Your task to perform on an android device: Is it going to rain today? Image 0: 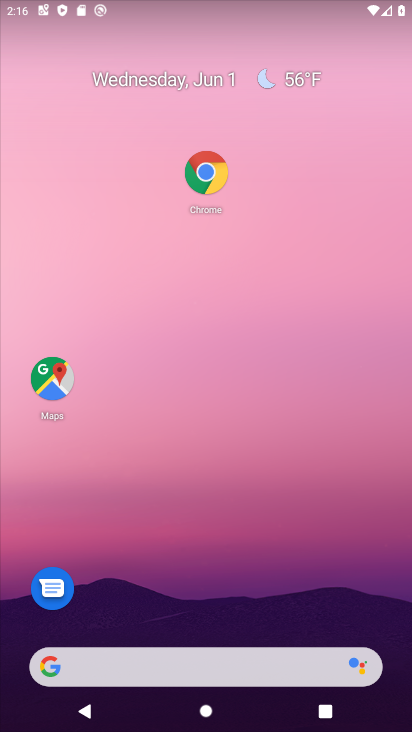
Step 0: drag from (218, 585) to (209, 65)
Your task to perform on an android device: Is it going to rain today? Image 1: 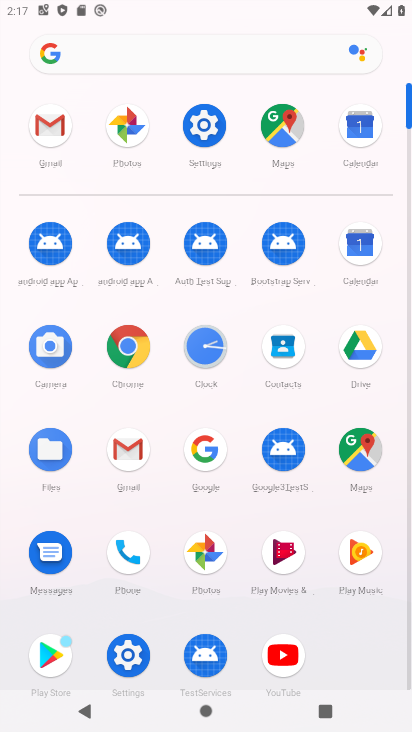
Step 1: click (205, 456)
Your task to perform on an android device: Is it going to rain today? Image 2: 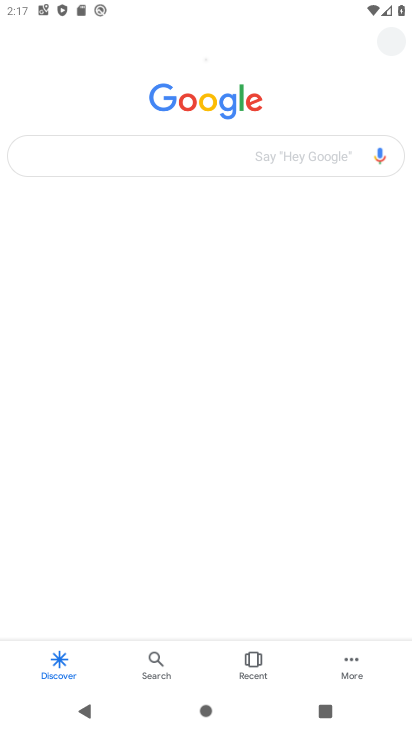
Step 2: click (196, 161)
Your task to perform on an android device: Is it going to rain today? Image 3: 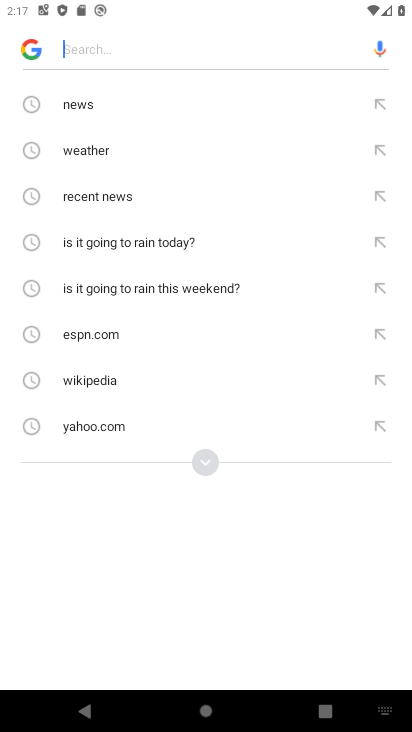
Step 3: click (144, 234)
Your task to perform on an android device: Is it going to rain today? Image 4: 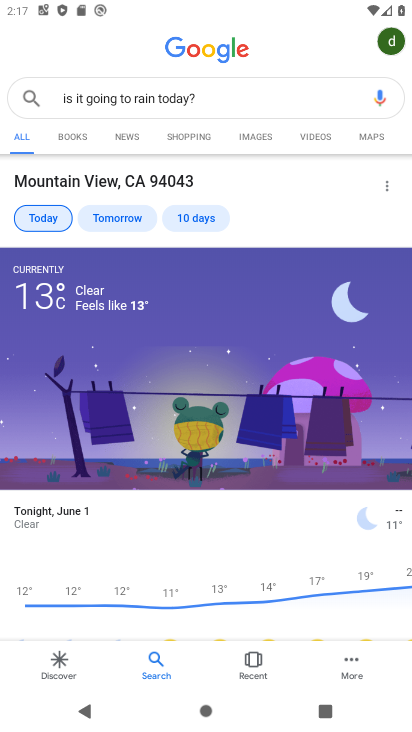
Step 4: task complete